Your task to perform on an android device: toggle improve location accuracy Image 0: 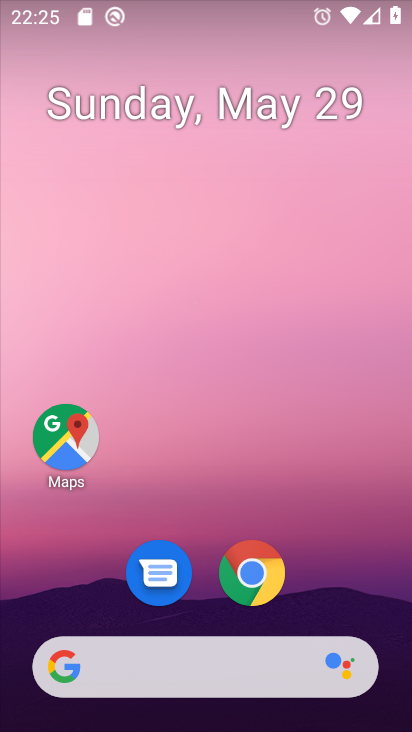
Step 0: drag from (222, 499) to (260, 1)
Your task to perform on an android device: toggle improve location accuracy Image 1: 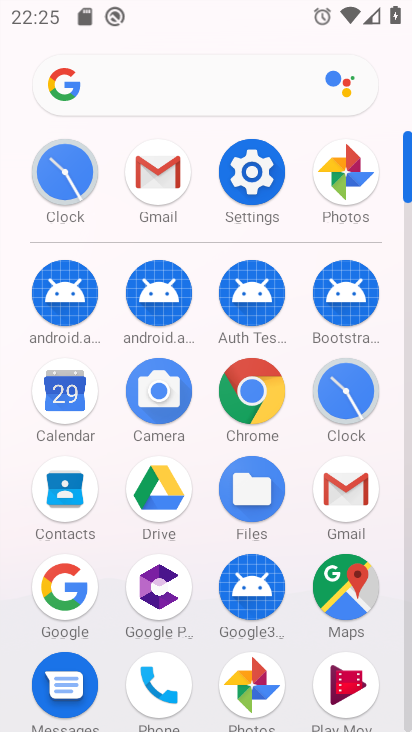
Step 1: click (254, 177)
Your task to perform on an android device: toggle improve location accuracy Image 2: 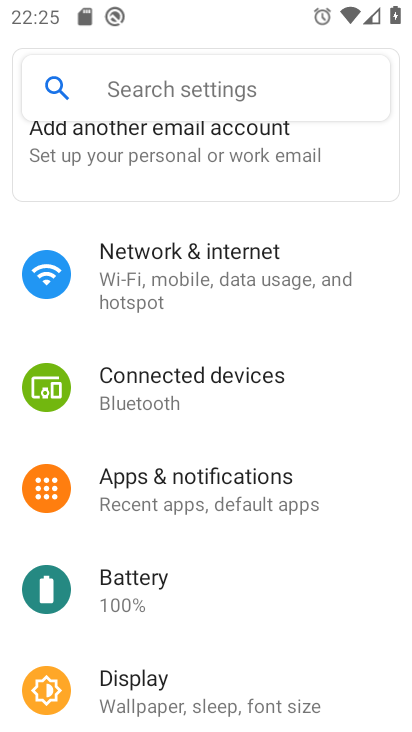
Step 2: drag from (191, 581) to (233, 25)
Your task to perform on an android device: toggle improve location accuracy Image 3: 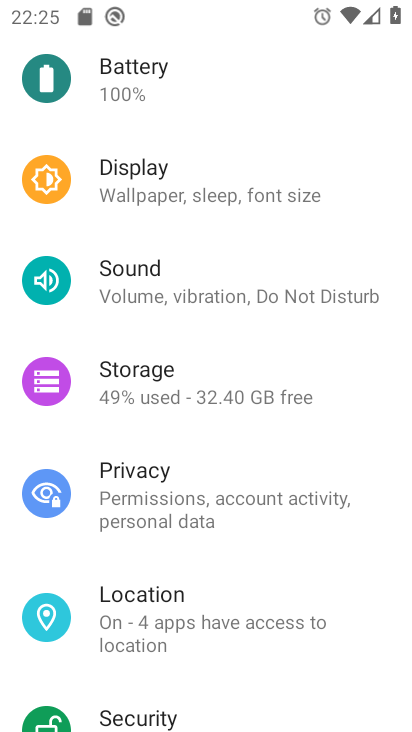
Step 3: click (231, 603)
Your task to perform on an android device: toggle improve location accuracy Image 4: 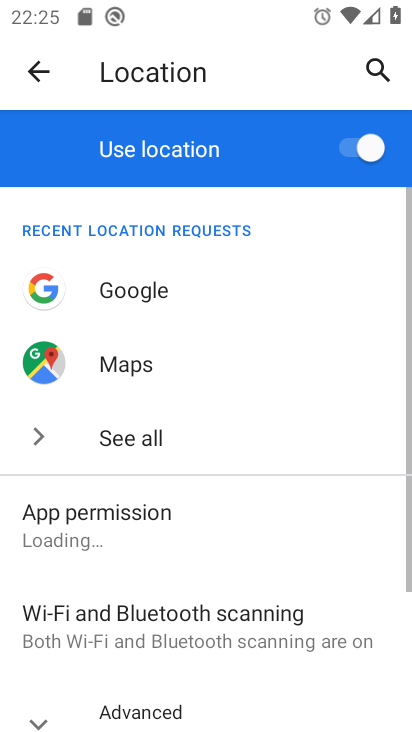
Step 4: drag from (199, 559) to (256, 53)
Your task to perform on an android device: toggle improve location accuracy Image 5: 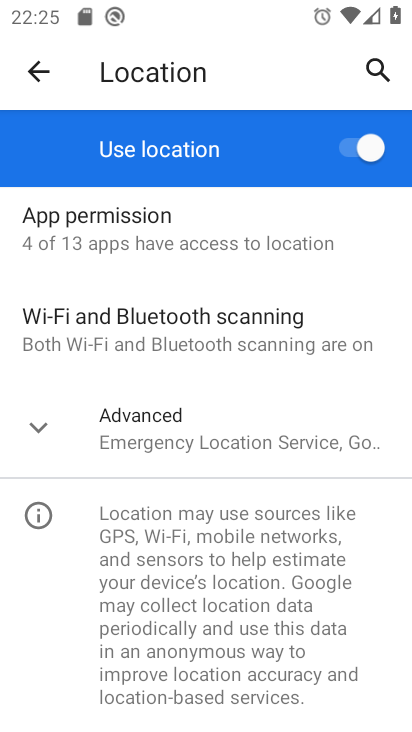
Step 5: click (39, 421)
Your task to perform on an android device: toggle improve location accuracy Image 6: 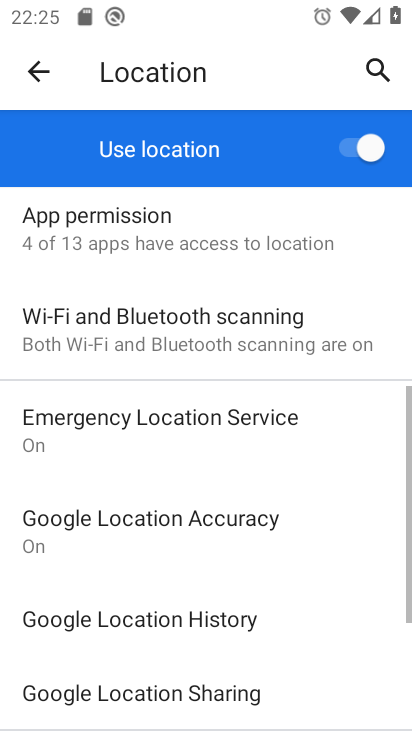
Step 6: drag from (239, 607) to (229, 543)
Your task to perform on an android device: toggle improve location accuracy Image 7: 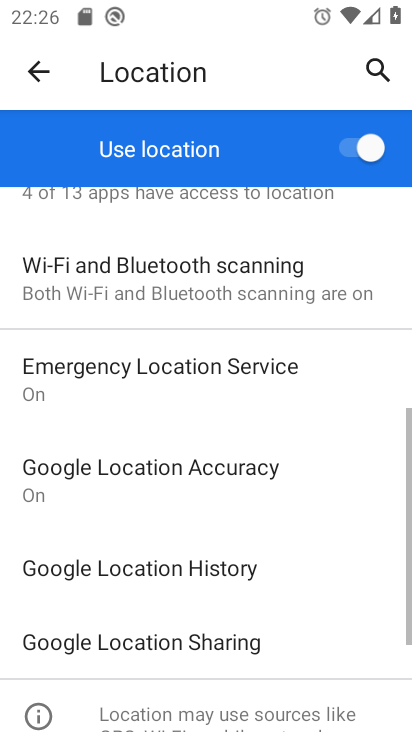
Step 7: click (228, 495)
Your task to perform on an android device: toggle improve location accuracy Image 8: 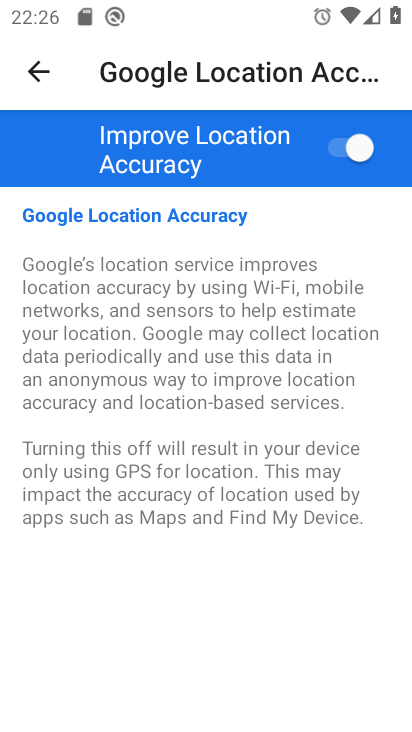
Step 8: click (364, 153)
Your task to perform on an android device: toggle improve location accuracy Image 9: 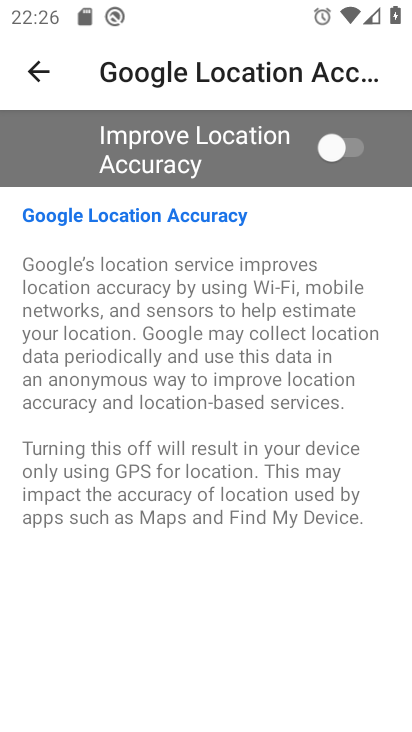
Step 9: task complete